Your task to perform on an android device: Show me popular videos on Youtube Image 0: 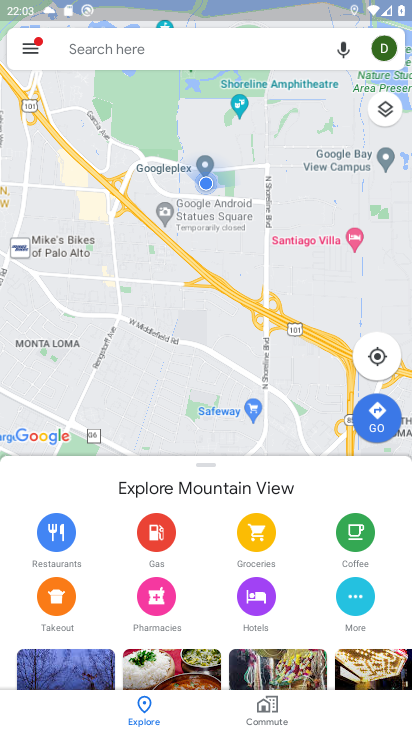
Step 0: press home button
Your task to perform on an android device: Show me popular videos on Youtube Image 1: 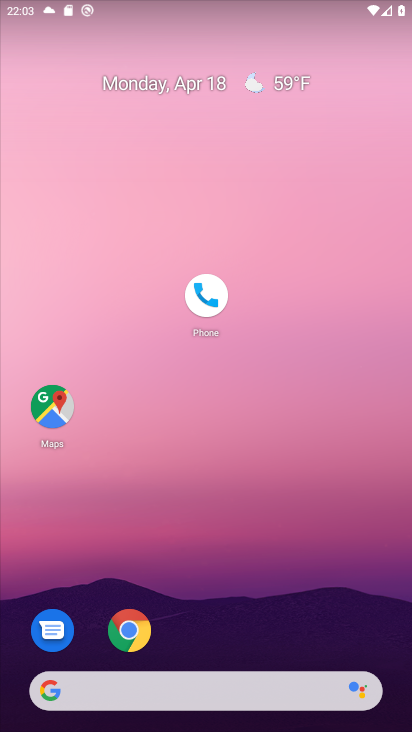
Step 1: drag from (309, 633) to (326, 144)
Your task to perform on an android device: Show me popular videos on Youtube Image 2: 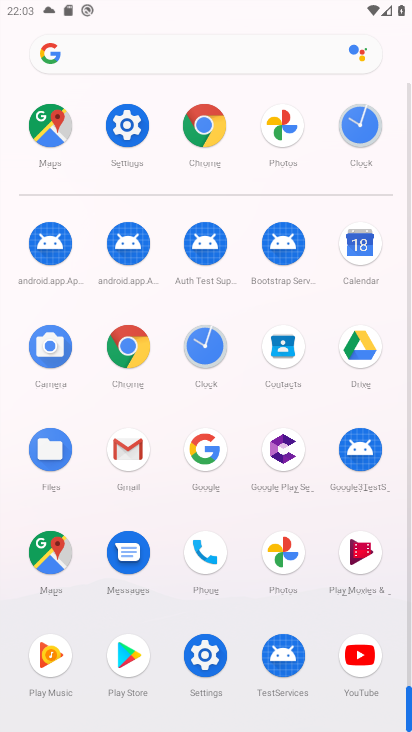
Step 2: click (361, 649)
Your task to perform on an android device: Show me popular videos on Youtube Image 3: 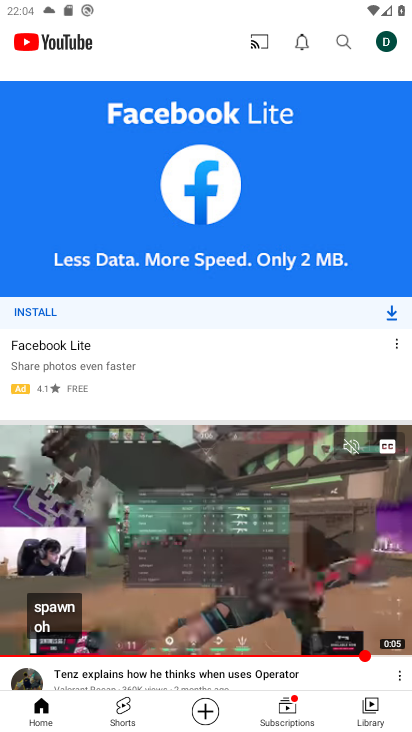
Step 3: click (391, 42)
Your task to perform on an android device: Show me popular videos on Youtube Image 4: 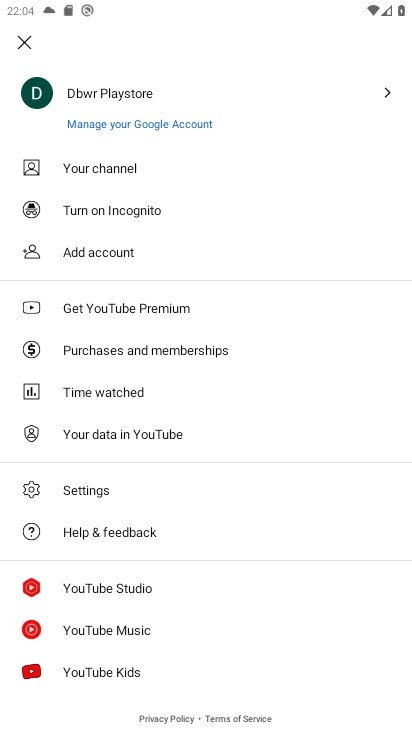
Step 4: click (20, 40)
Your task to perform on an android device: Show me popular videos on Youtube Image 5: 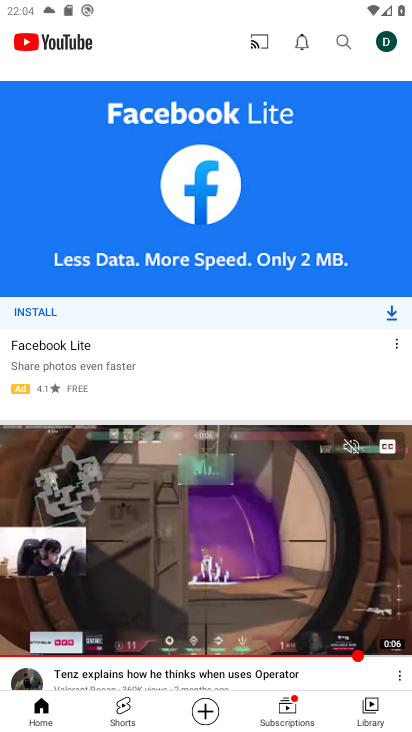
Step 5: click (382, 35)
Your task to perform on an android device: Show me popular videos on Youtube Image 6: 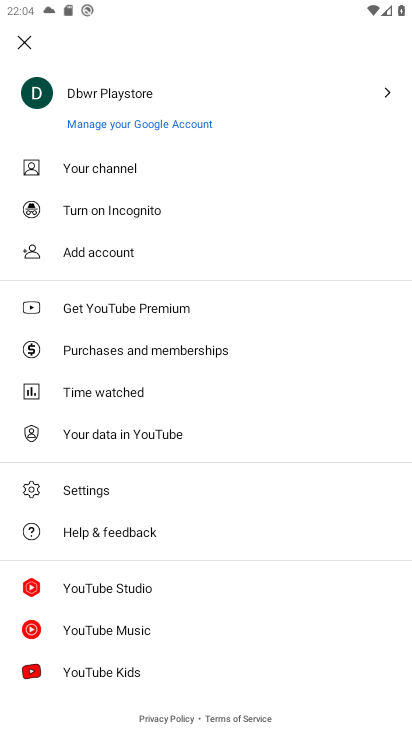
Step 6: click (22, 39)
Your task to perform on an android device: Show me popular videos on Youtube Image 7: 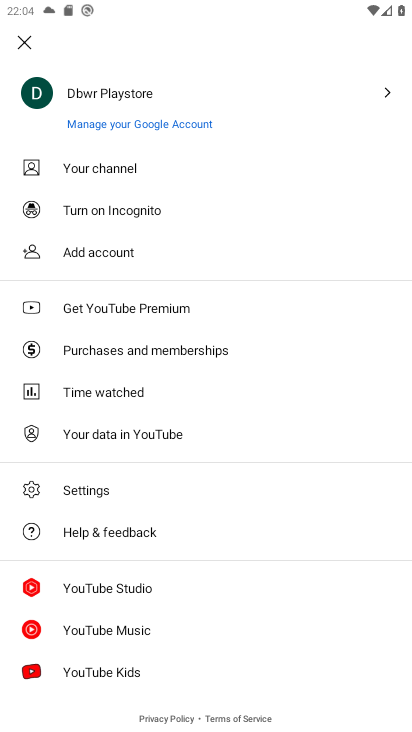
Step 7: click (24, 41)
Your task to perform on an android device: Show me popular videos on Youtube Image 8: 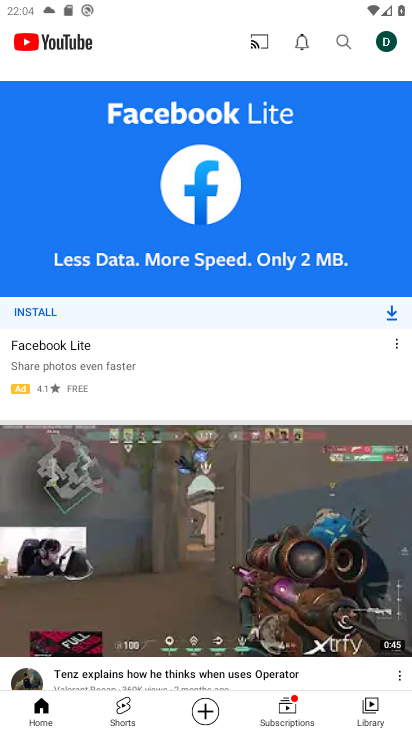
Step 8: click (24, 41)
Your task to perform on an android device: Show me popular videos on Youtube Image 9: 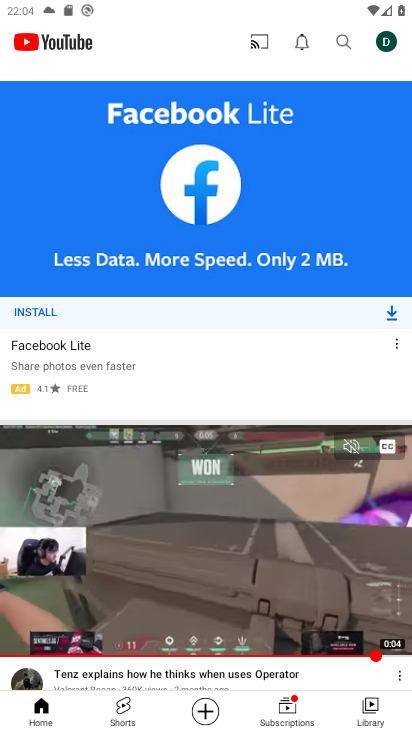
Step 9: click (369, 709)
Your task to perform on an android device: Show me popular videos on Youtube Image 10: 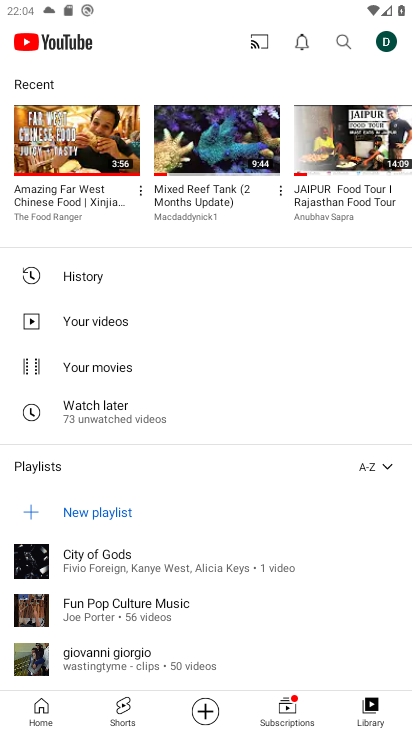
Step 10: click (281, 707)
Your task to perform on an android device: Show me popular videos on Youtube Image 11: 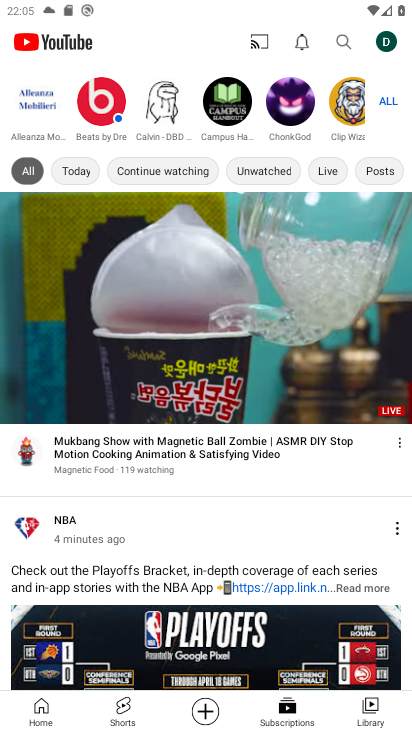
Step 11: click (122, 704)
Your task to perform on an android device: Show me popular videos on Youtube Image 12: 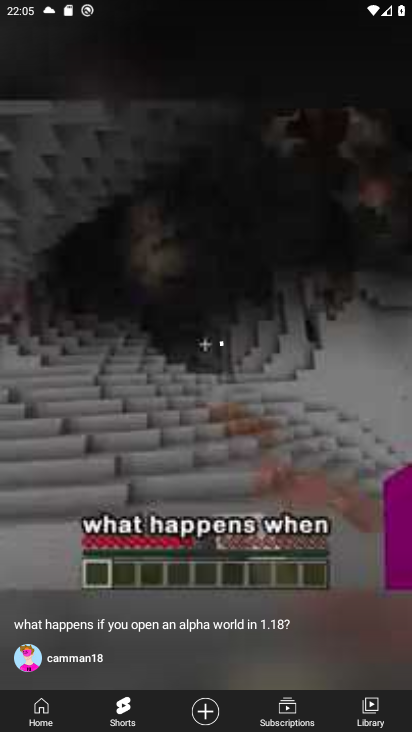
Step 12: click (50, 716)
Your task to perform on an android device: Show me popular videos on Youtube Image 13: 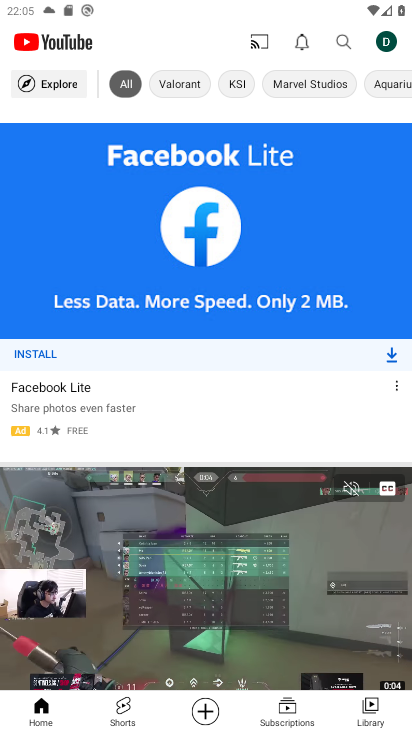
Step 13: click (262, 44)
Your task to perform on an android device: Show me popular videos on Youtube Image 14: 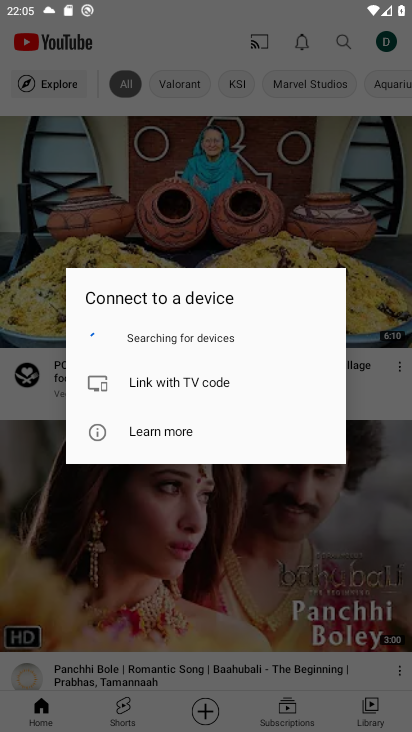
Step 14: click (266, 50)
Your task to perform on an android device: Show me popular videos on Youtube Image 15: 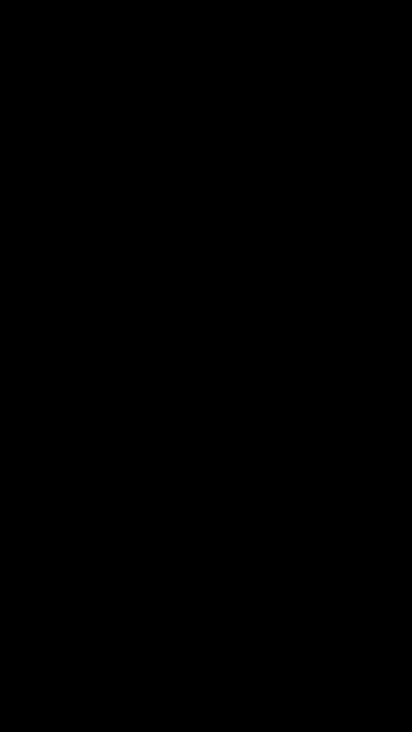
Step 15: task complete